Your task to perform on an android device: Open eBay Image 0: 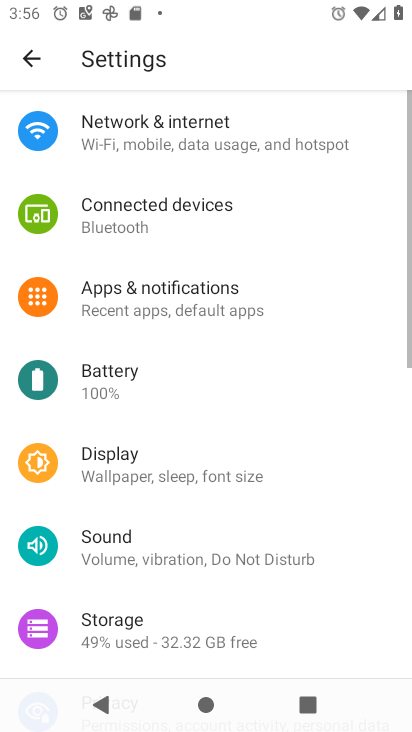
Step 0: press home button
Your task to perform on an android device: Open eBay Image 1: 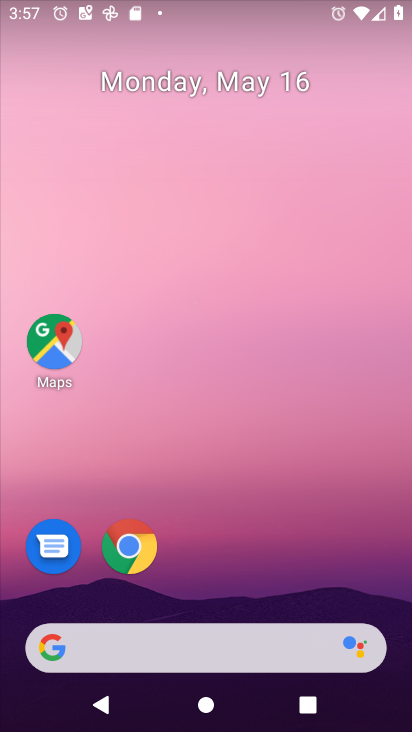
Step 1: drag from (344, 573) to (355, 72)
Your task to perform on an android device: Open eBay Image 2: 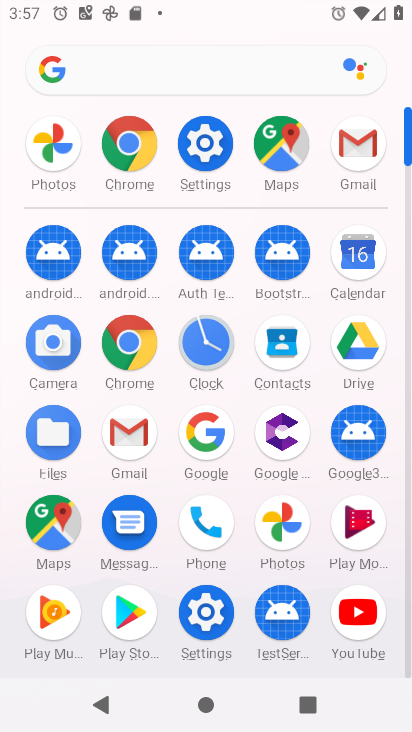
Step 2: click (133, 347)
Your task to perform on an android device: Open eBay Image 3: 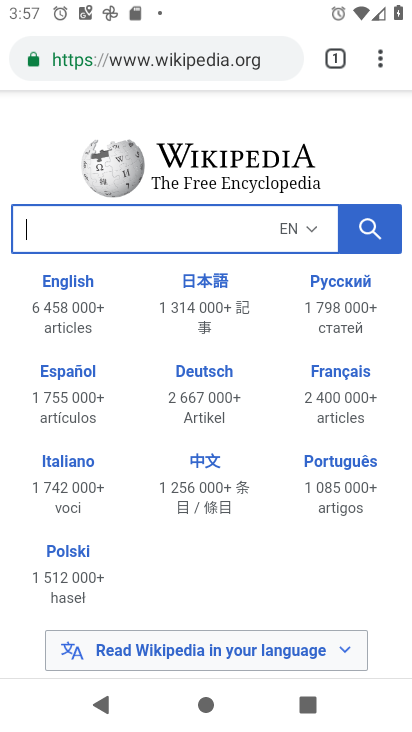
Step 3: click (183, 60)
Your task to perform on an android device: Open eBay Image 4: 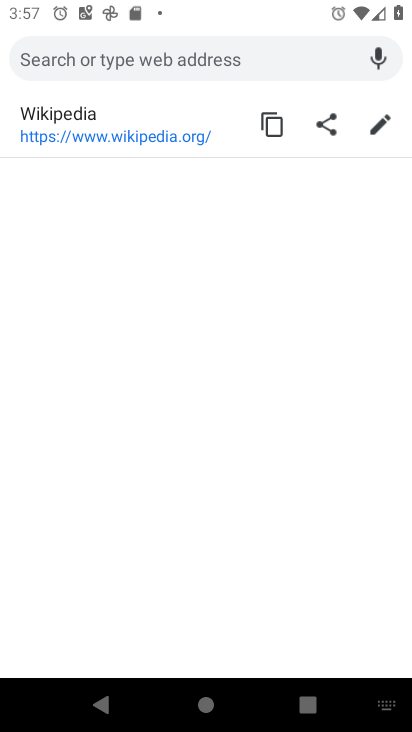
Step 4: type "ebay"
Your task to perform on an android device: Open eBay Image 5: 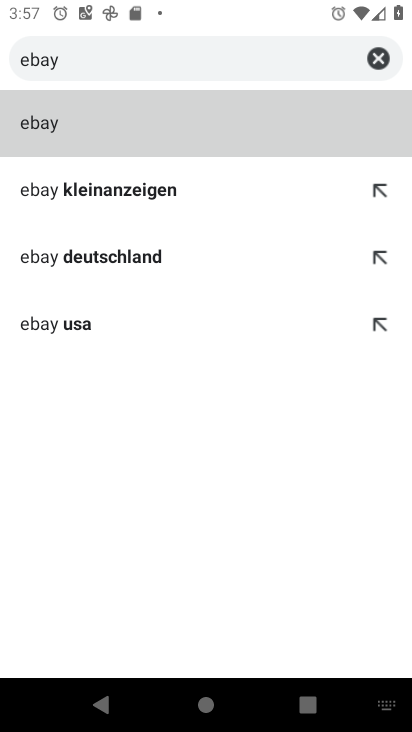
Step 5: click (244, 132)
Your task to perform on an android device: Open eBay Image 6: 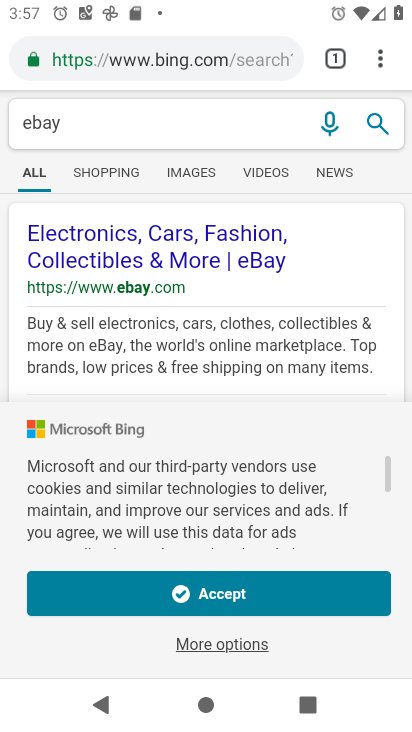
Step 6: task complete